Your task to perform on an android device: Go to accessibility settings Image 0: 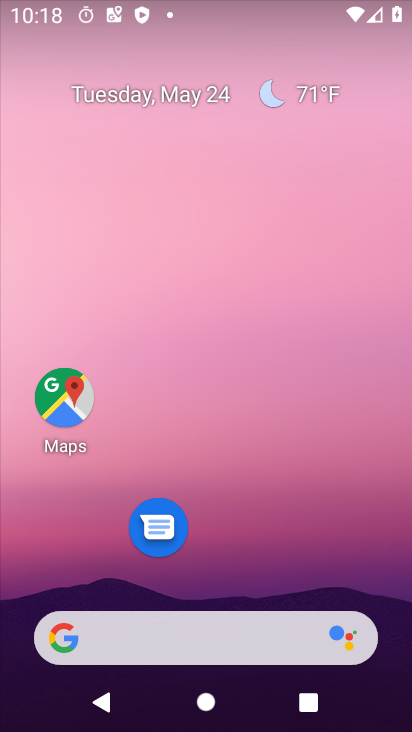
Step 0: drag from (231, 577) to (252, 97)
Your task to perform on an android device: Go to accessibility settings Image 1: 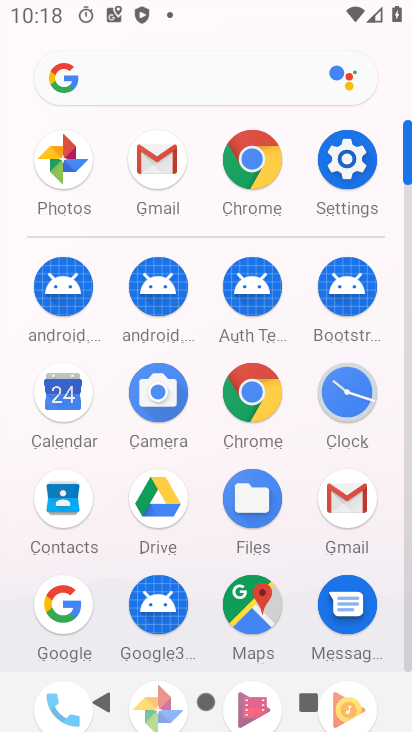
Step 1: click (353, 152)
Your task to perform on an android device: Go to accessibility settings Image 2: 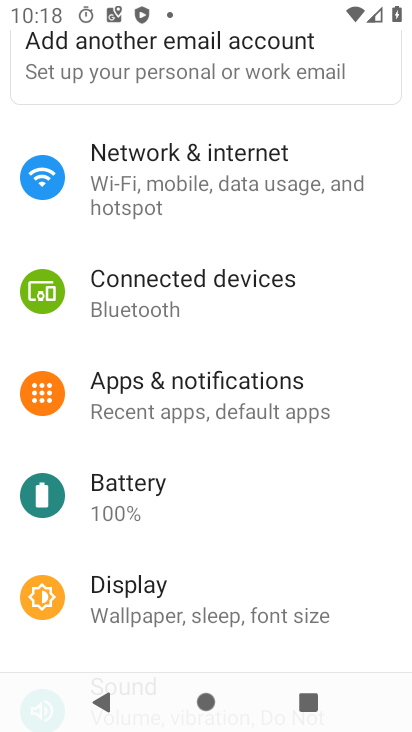
Step 2: drag from (261, 571) to (259, 123)
Your task to perform on an android device: Go to accessibility settings Image 3: 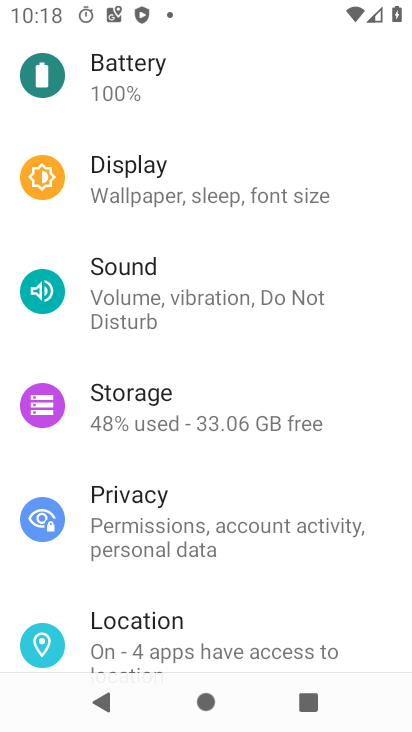
Step 3: drag from (238, 547) to (245, 206)
Your task to perform on an android device: Go to accessibility settings Image 4: 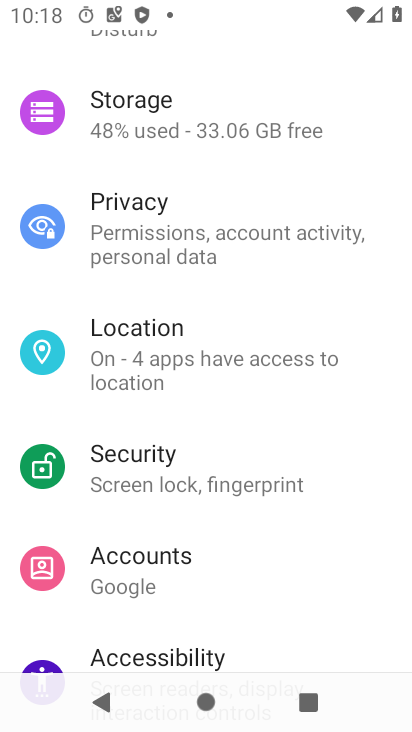
Step 4: drag from (271, 561) to (252, 169)
Your task to perform on an android device: Go to accessibility settings Image 5: 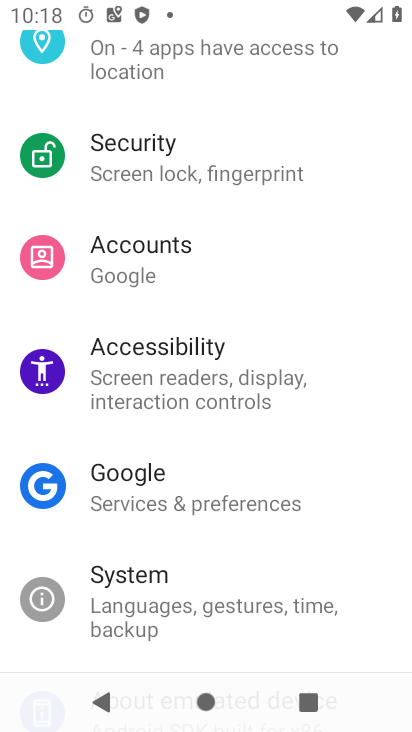
Step 5: drag from (266, 531) to (260, 362)
Your task to perform on an android device: Go to accessibility settings Image 6: 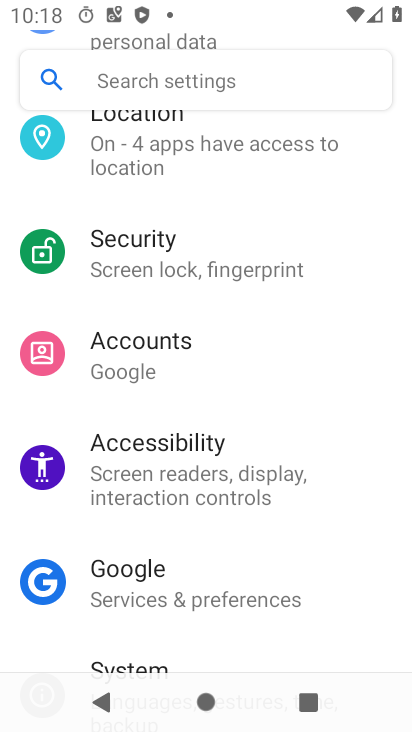
Step 6: click (181, 454)
Your task to perform on an android device: Go to accessibility settings Image 7: 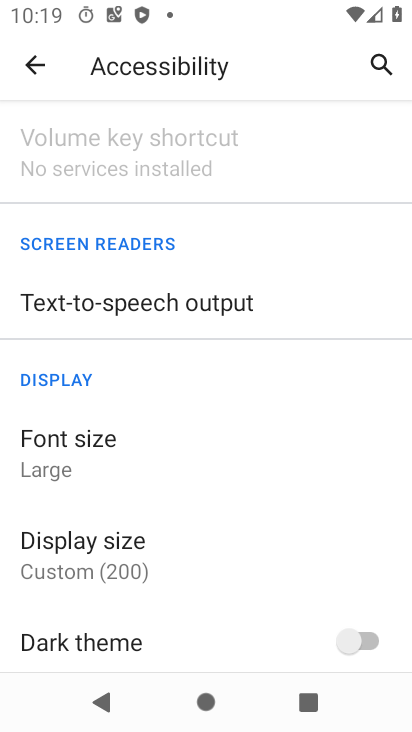
Step 7: task complete